Your task to perform on an android device: toggle location history Image 0: 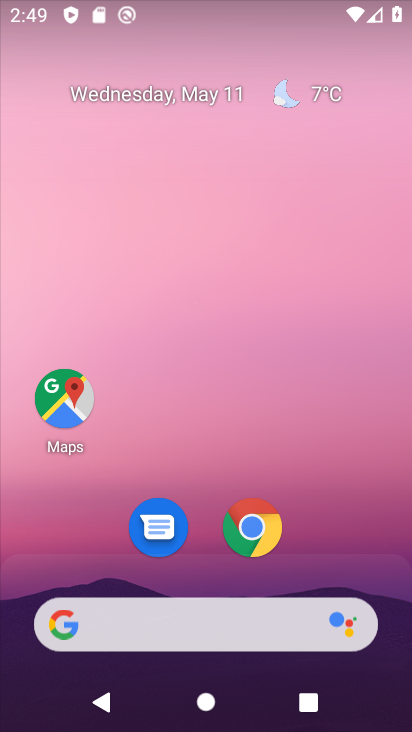
Step 0: click (66, 407)
Your task to perform on an android device: toggle location history Image 1: 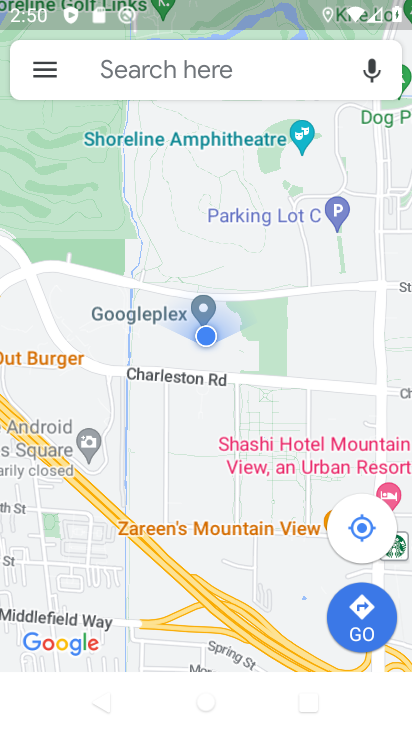
Step 1: click (42, 75)
Your task to perform on an android device: toggle location history Image 2: 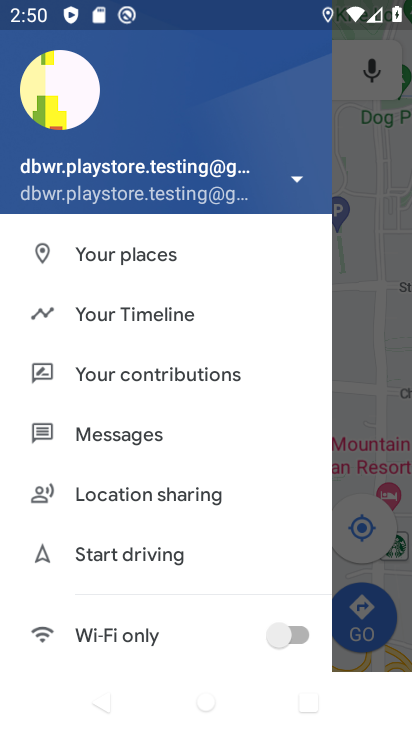
Step 2: click (82, 312)
Your task to perform on an android device: toggle location history Image 3: 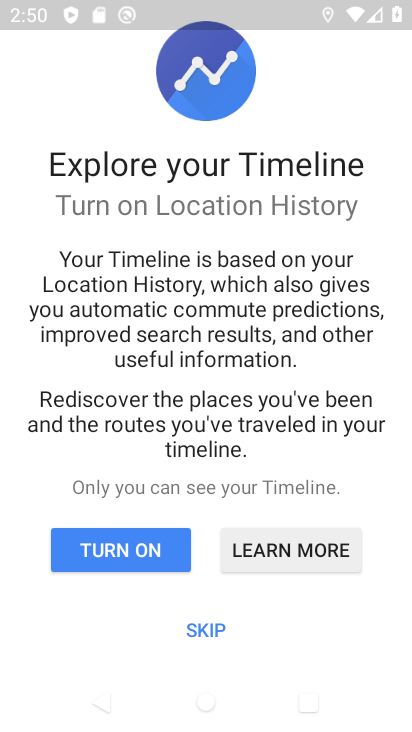
Step 3: click (189, 635)
Your task to perform on an android device: toggle location history Image 4: 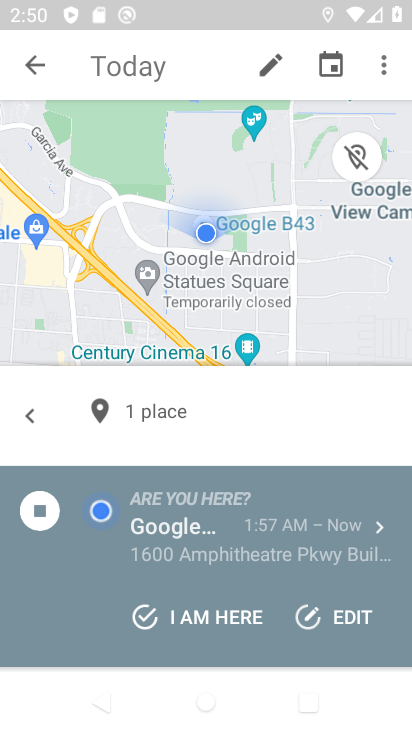
Step 4: click (382, 67)
Your task to perform on an android device: toggle location history Image 5: 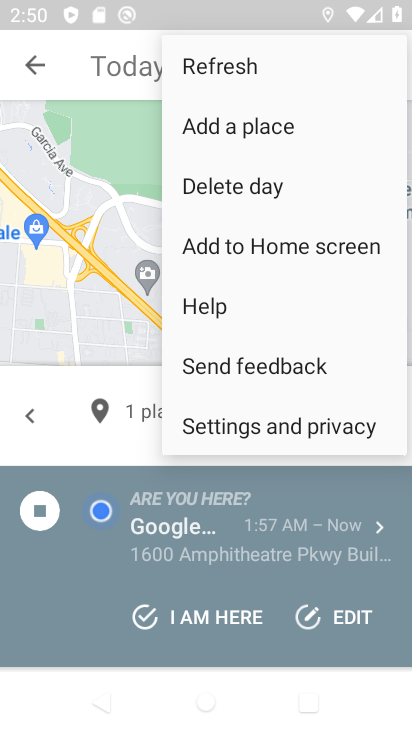
Step 5: click (246, 426)
Your task to perform on an android device: toggle location history Image 6: 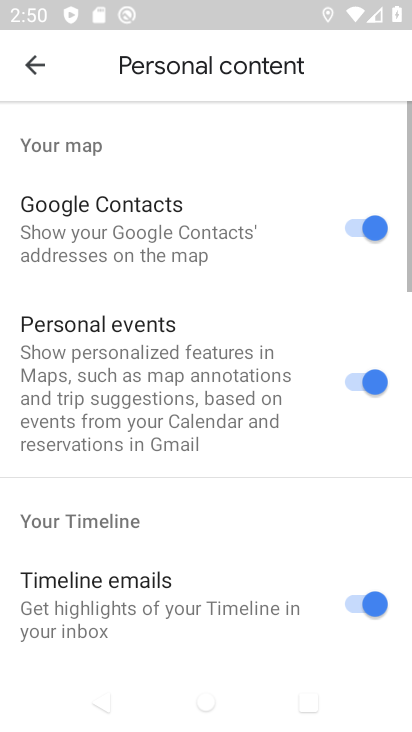
Step 6: drag from (157, 536) to (164, 154)
Your task to perform on an android device: toggle location history Image 7: 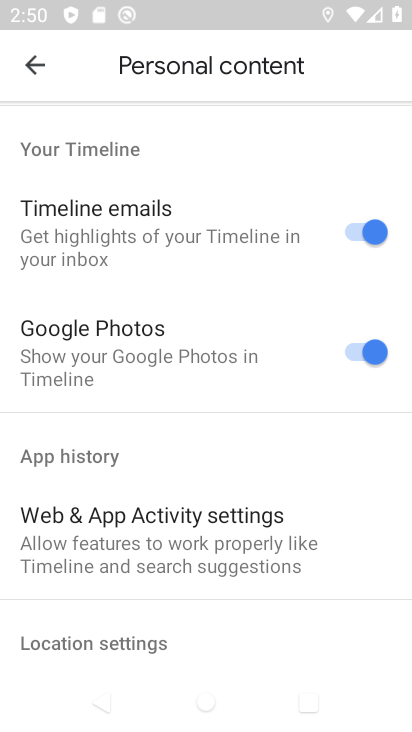
Step 7: drag from (146, 493) to (166, 124)
Your task to perform on an android device: toggle location history Image 8: 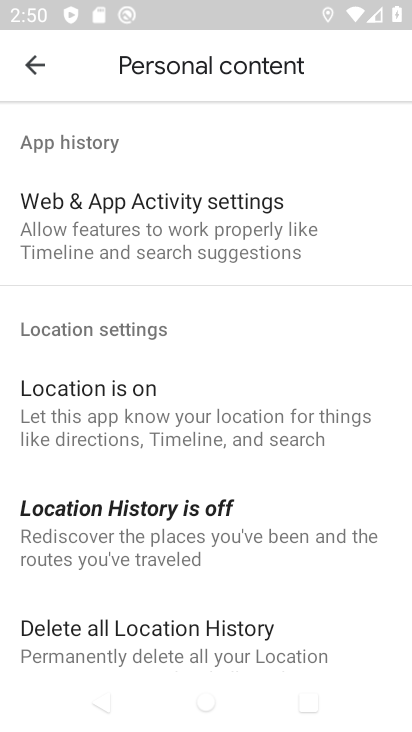
Step 8: click (127, 526)
Your task to perform on an android device: toggle location history Image 9: 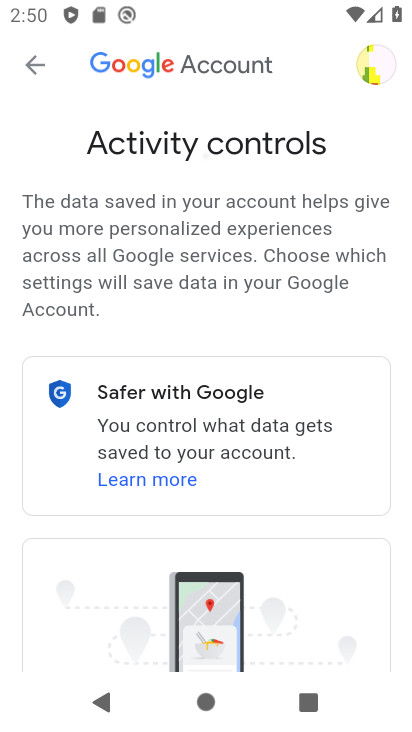
Step 9: drag from (248, 529) to (227, 140)
Your task to perform on an android device: toggle location history Image 10: 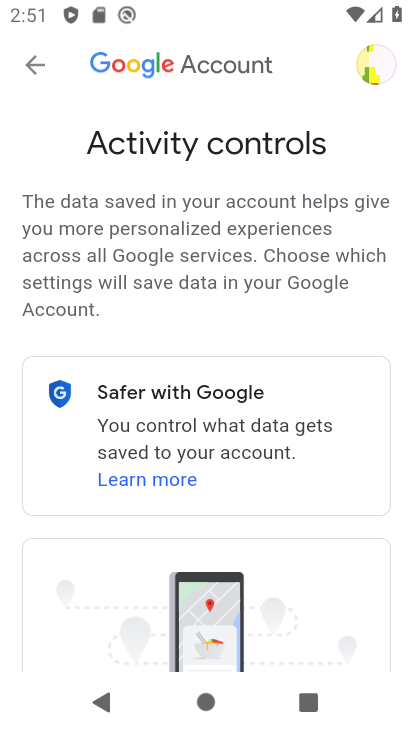
Step 10: drag from (278, 471) to (238, 87)
Your task to perform on an android device: toggle location history Image 11: 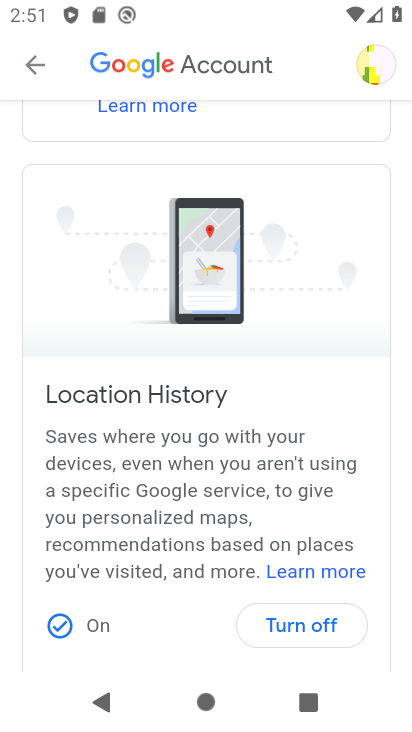
Step 11: drag from (270, 513) to (260, 226)
Your task to perform on an android device: toggle location history Image 12: 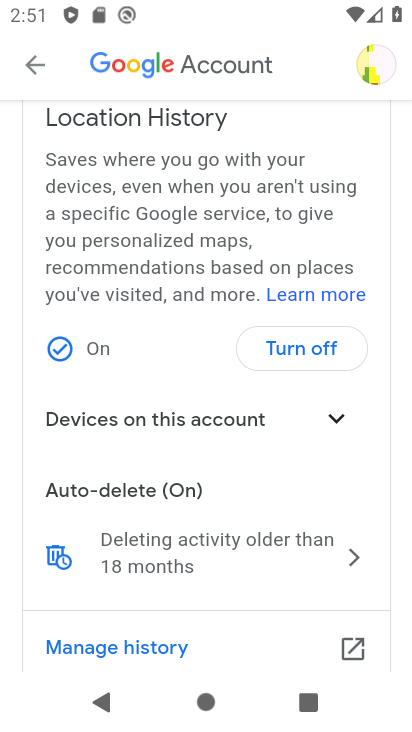
Step 12: click (287, 355)
Your task to perform on an android device: toggle location history Image 13: 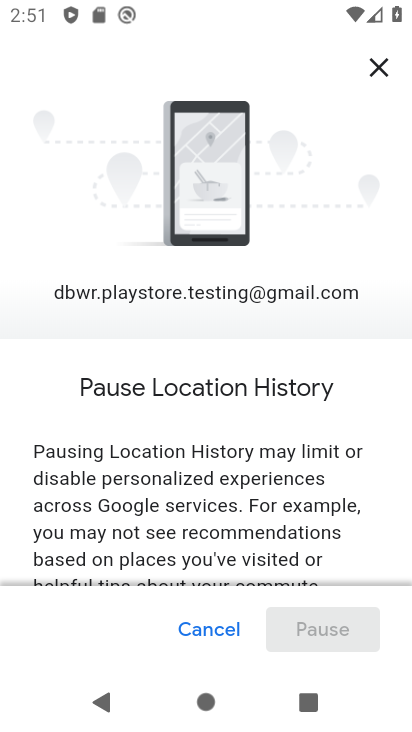
Step 13: drag from (225, 518) to (200, 163)
Your task to perform on an android device: toggle location history Image 14: 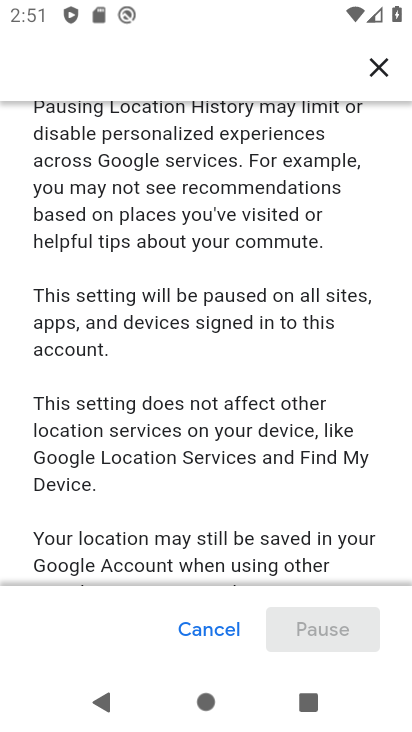
Step 14: drag from (186, 525) to (171, 132)
Your task to perform on an android device: toggle location history Image 15: 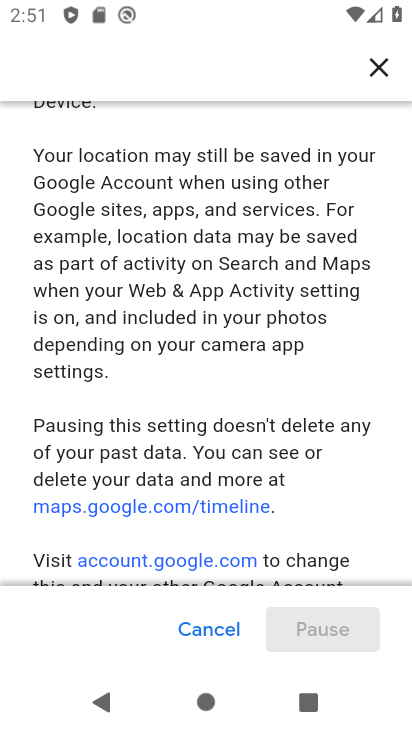
Step 15: drag from (169, 446) to (155, 99)
Your task to perform on an android device: toggle location history Image 16: 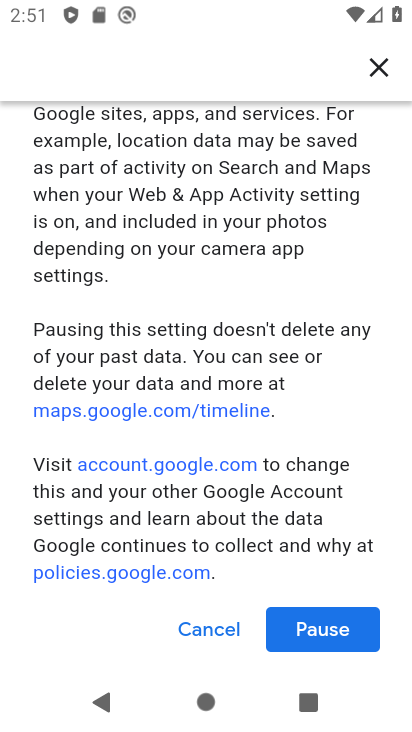
Step 16: click (327, 639)
Your task to perform on an android device: toggle location history Image 17: 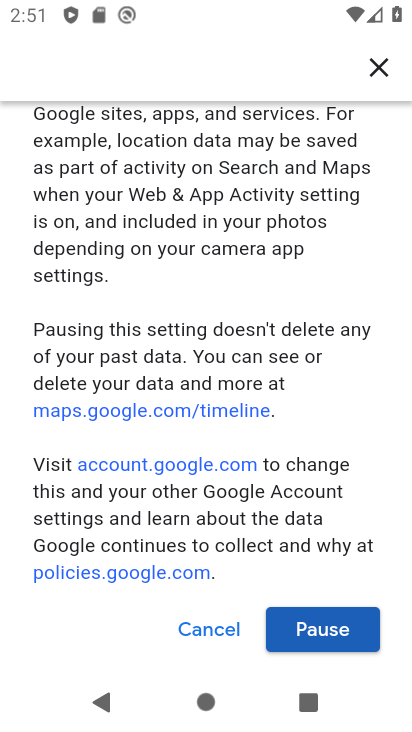
Step 17: click (329, 629)
Your task to perform on an android device: toggle location history Image 18: 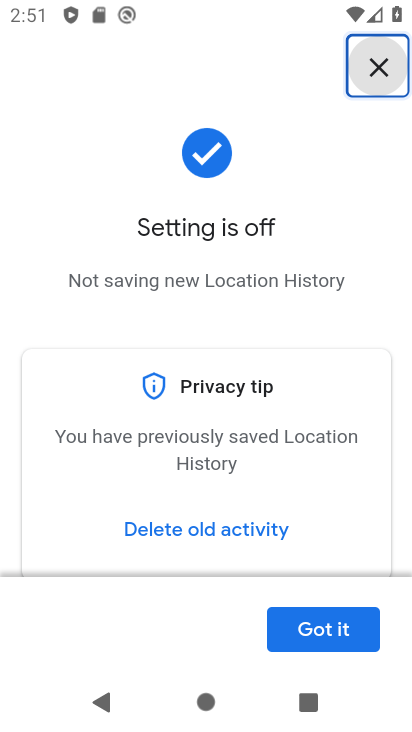
Step 18: click (320, 629)
Your task to perform on an android device: toggle location history Image 19: 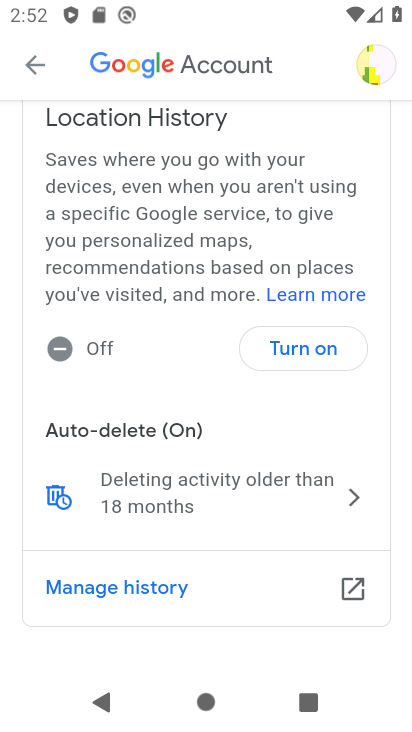
Step 19: task complete